Your task to perform on an android device: Go to Google Image 0: 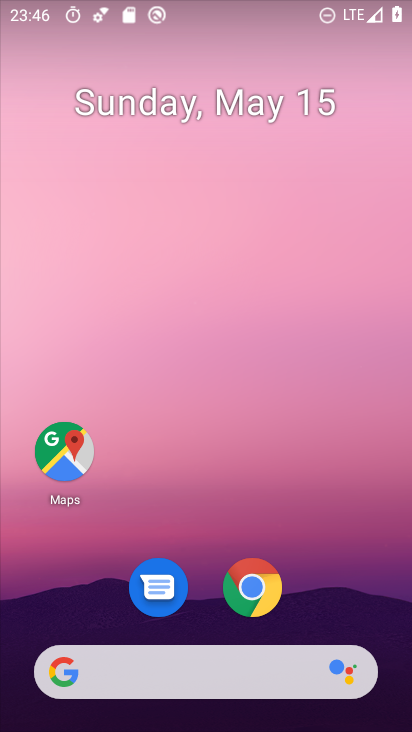
Step 0: drag from (200, 619) to (214, 171)
Your task to perform on an android device: Go to Google Image 1: 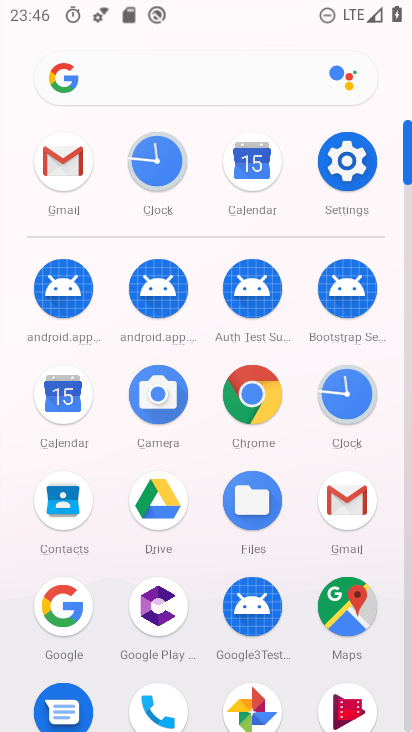
Step 1: click (65, 592)
Your task to perform on an android device: Go to Google Image 2: 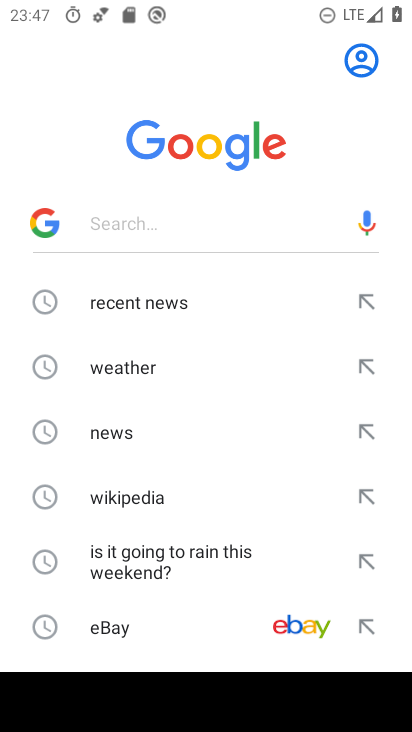
Step 2: task complete